Your task to perform on an android device: Go to CNN.com Image 0: 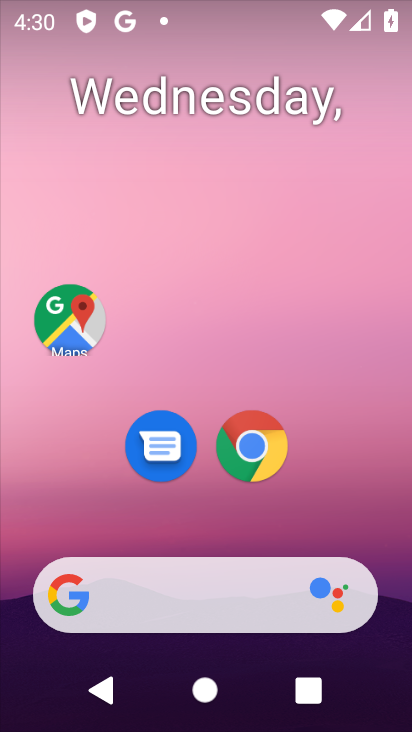
Step 0: click (223, 574)
Your task to perform on an android device: Go to CNN.com Image 1: 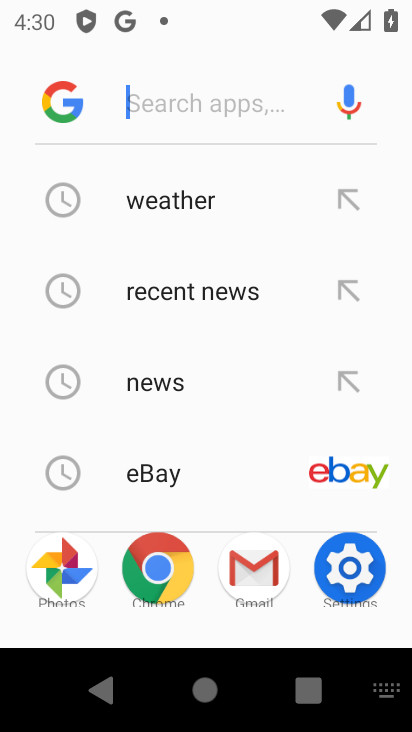
Step 1: type "CNN.com"
Your task to perform on an android device: Go to CNN.com Image 2: 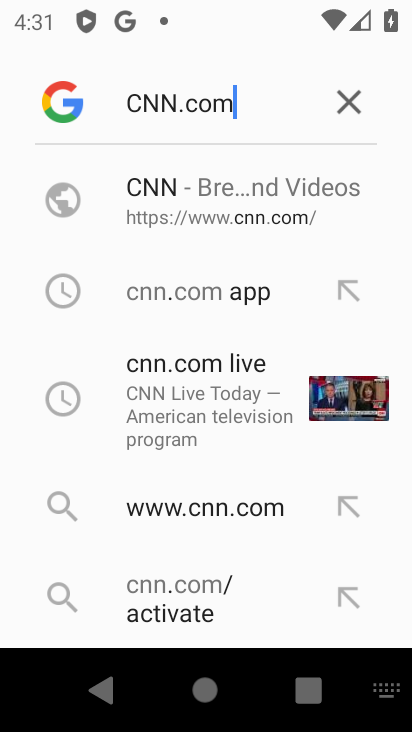
Step 2: click (229, 217)
Your task to perform on an android device: Go to CNN.com Image 3: 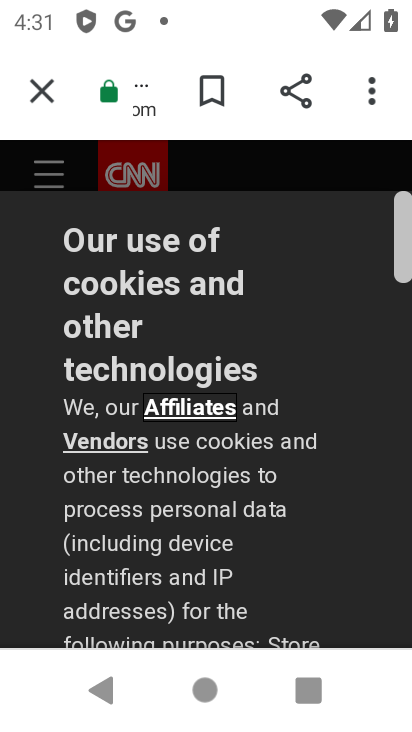
Step 3: task complete